Your task to perform on an android device: What's on my calendar today? Image 0: 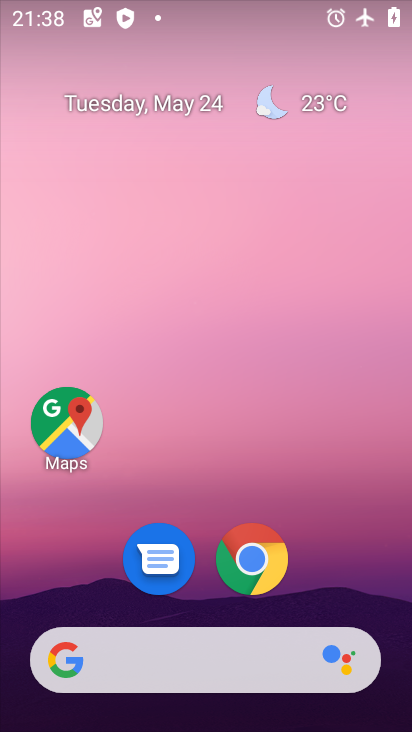
Step 0: drag from (319, 558) to (317, 204)
Your task to perform on an android device: What's on my calendar today? Image 1: 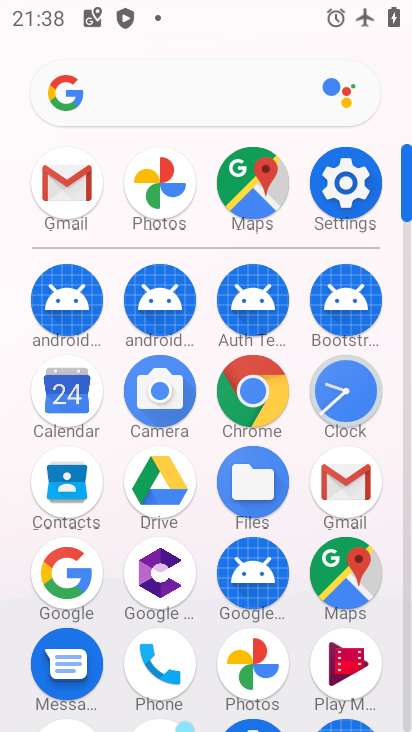
Step 1: click (62, 396)
Your task to perform on an android device: What's on my calendar today? Image 2: 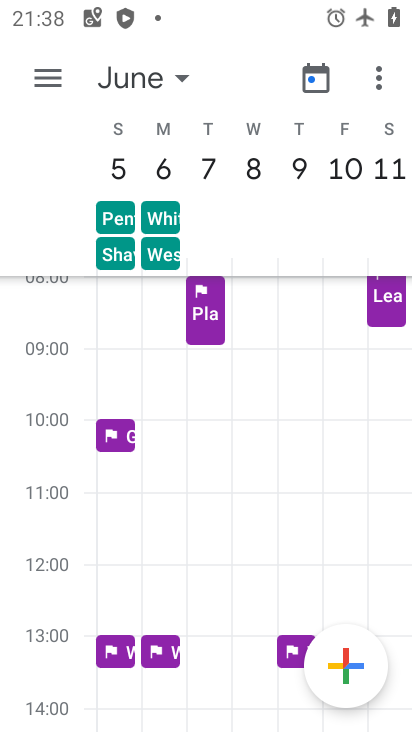
Step 2: click (158, 82)
Your task to perform on an android device: What's on my calendar today? Image 3: 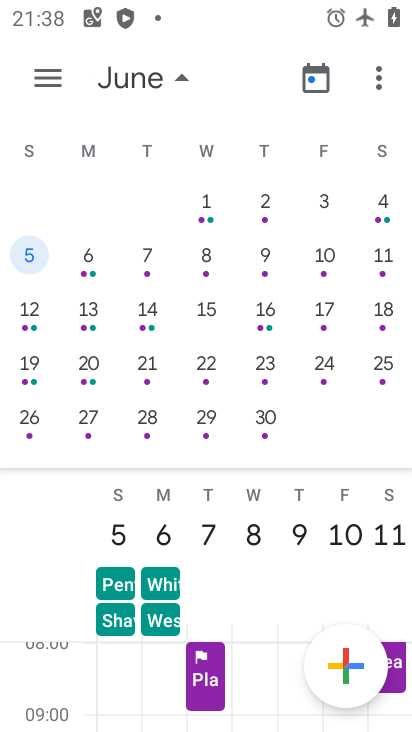
Step 3: drag from (30, 357) to (231, 311)
Your task to perform on an android device: What's on my calendar today? Image 4: 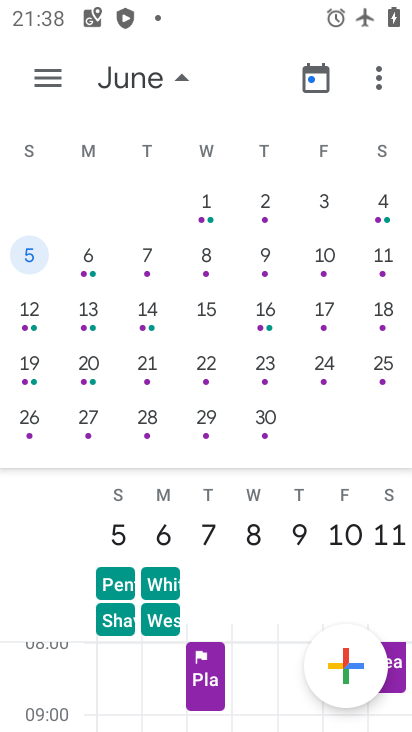
Step 4: drag from (94, 327) to (316, 300)
Your task to perform on an android device: What's on my calendar today? Image 5: 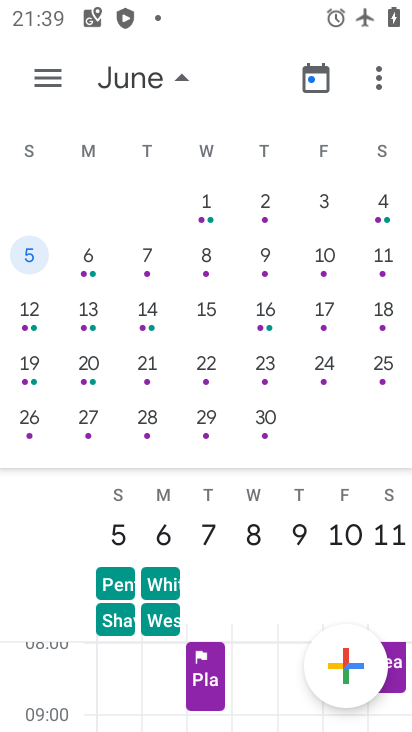
Step 5: drag from (77, 341) to (340, 322)
Your task to perform on an android device: What's on my calendar today? Image 6: 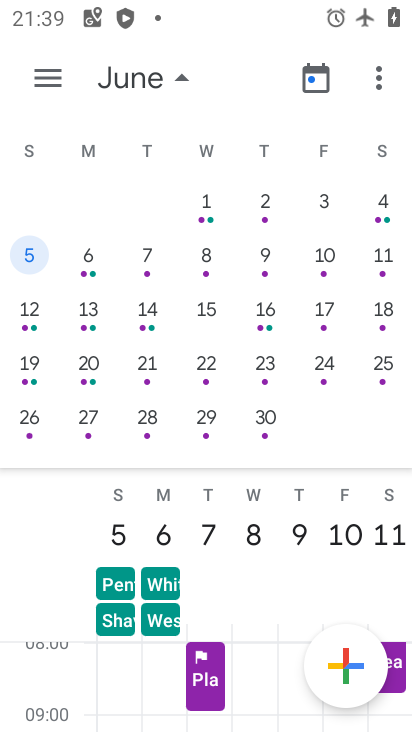
Step 6: drag from (65, 341) to (348, 345)
Your task to perform on an android device: What's on my calendar today? Image 7: 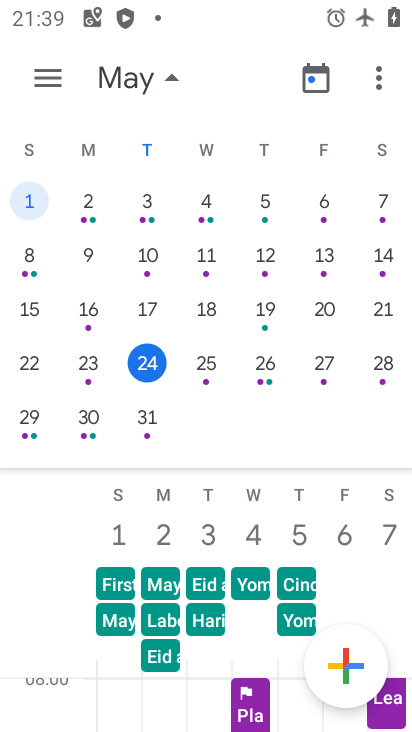
Step 7: click (142, 358)
Your task to perform on an android device: What's on my calendar today? Image 8: 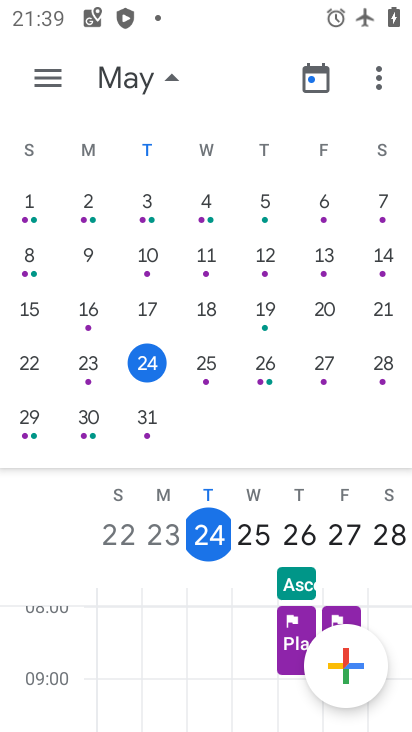
Step 8: task complete